Your task to perform on an android device: Go to Yahoo.com Image 0: 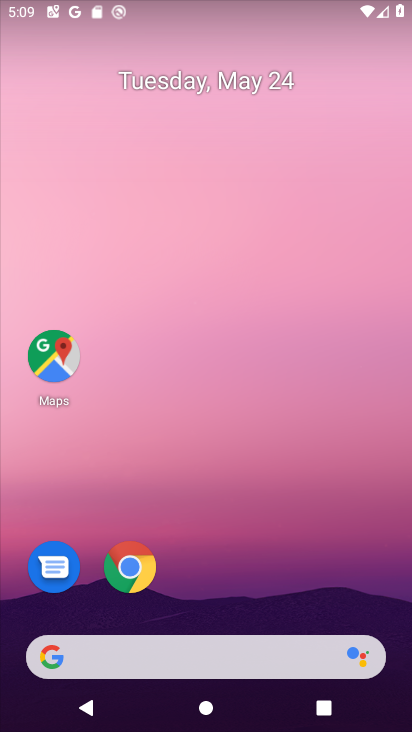
Step 0: click (132, 566)
Your task to perform on an android device: Go to Yahoo.com Image 1: 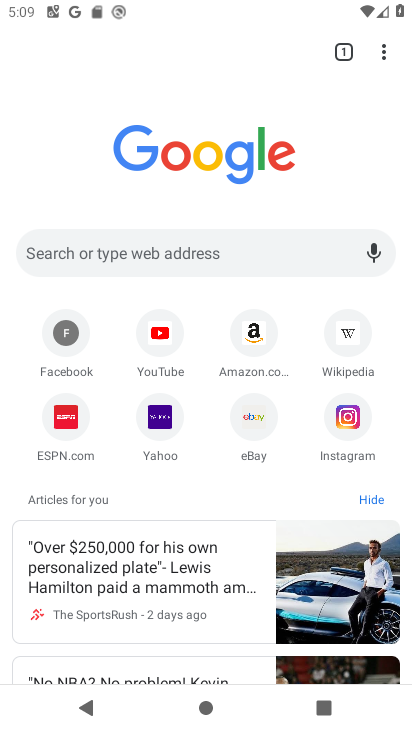
Step 1: click (203, 247)
Your task to perform on an android device: Go to Yahoo.com Image 2: 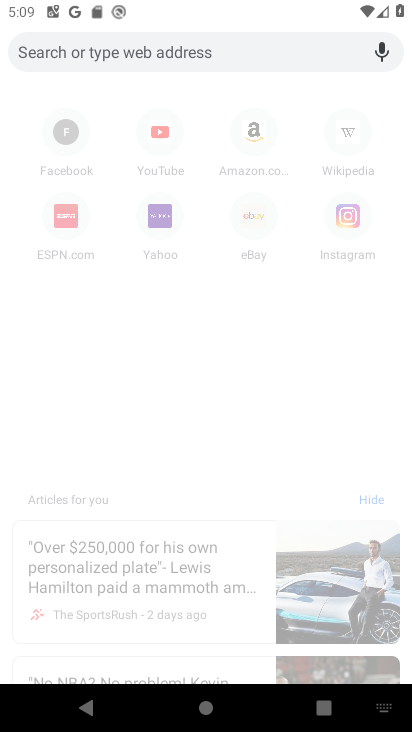
Step 2: type "Yahoo.com"
Your task to perform on an android device: Go to Yahoo.com Image 3: 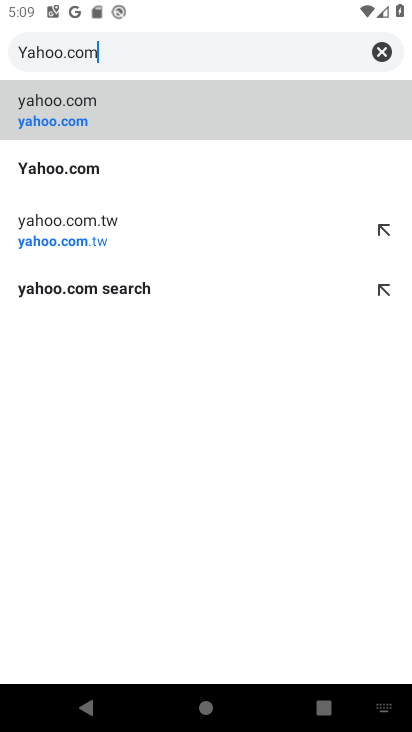
Step 3: click (96, 167)
Your task to perform on an android device: Go to Yahoo.com Image 4: 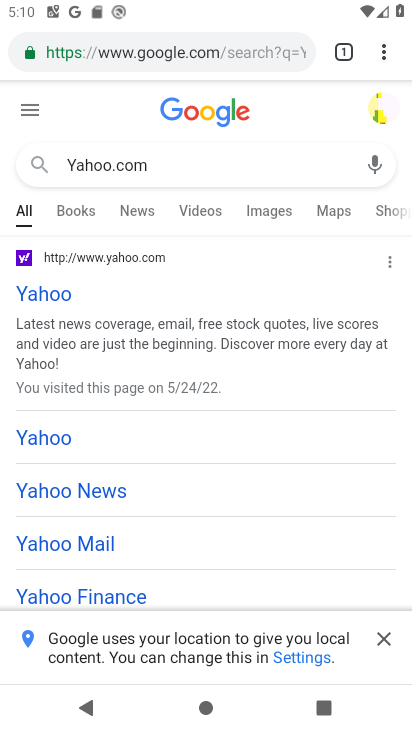
Step 4: click (57, 300)
Your task to perform on an android device: Go to Yahoo.com Image 5: 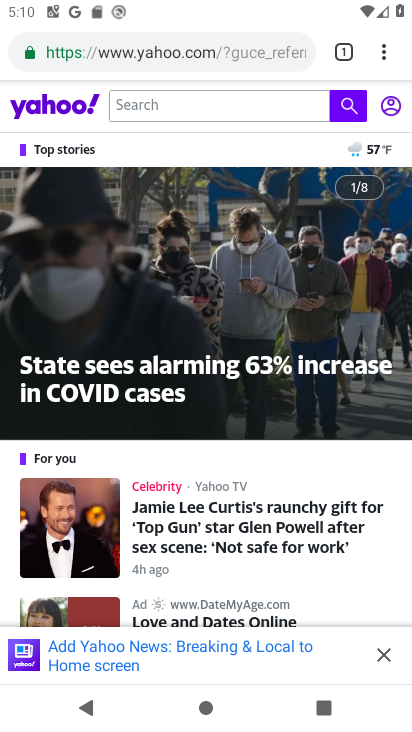
Step 5: task complete